Your task to perform on an android device: toggle wifi Image 0: 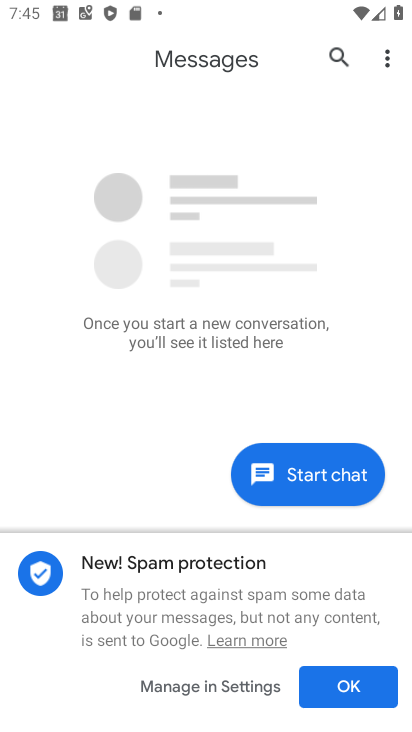
Step 0: press home button
Your task to perform on an android device: toggle wifi Image 1: 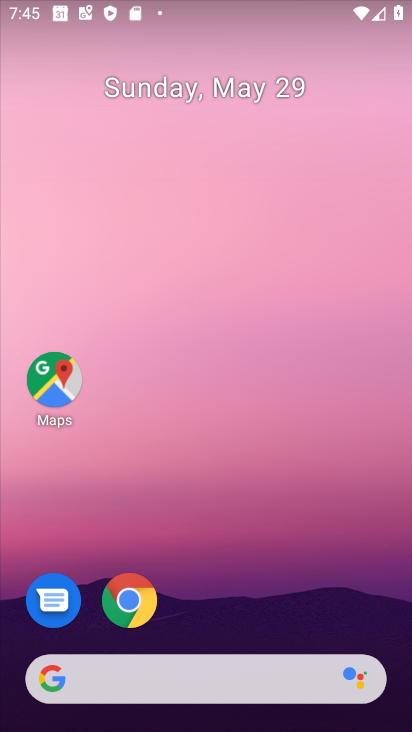
Step 1: drag from (231, 630) to (249, 113)
Your task to perform on an android device: toggle wifi Image 2: 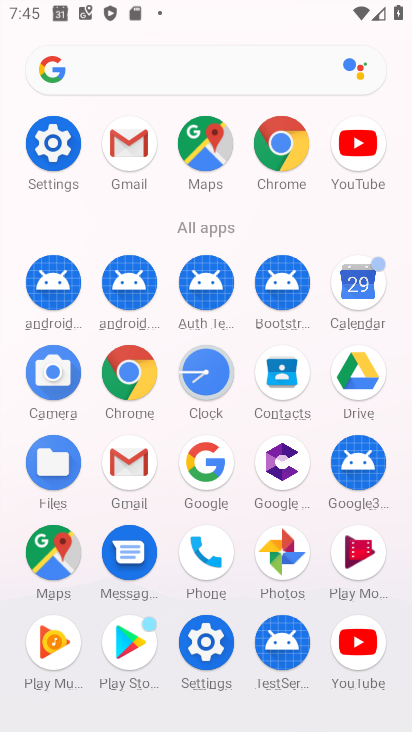
Step 2: click (51, 146)
Your task to perform on an android device: toggle wifi Image 3: 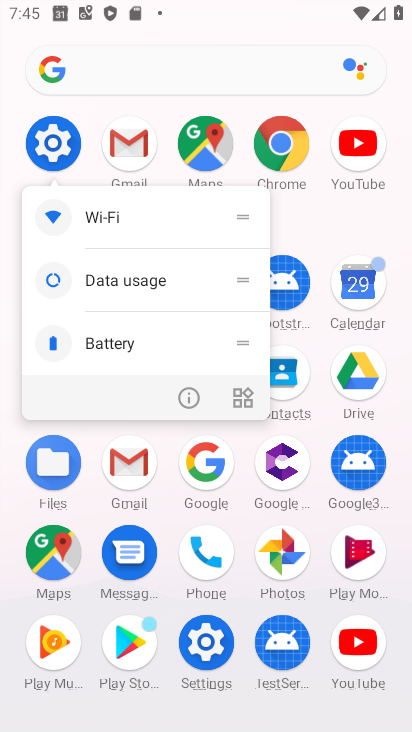
Step 3: click (117, 222)
Your task to perform on an android device: toggle wifi Image 4: 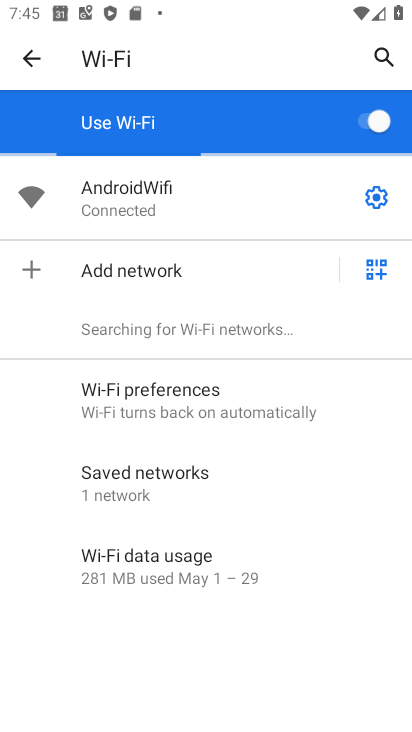
Step 4: click (354, 119)
Your task to perform on an android device: toggle wifi Image 5: 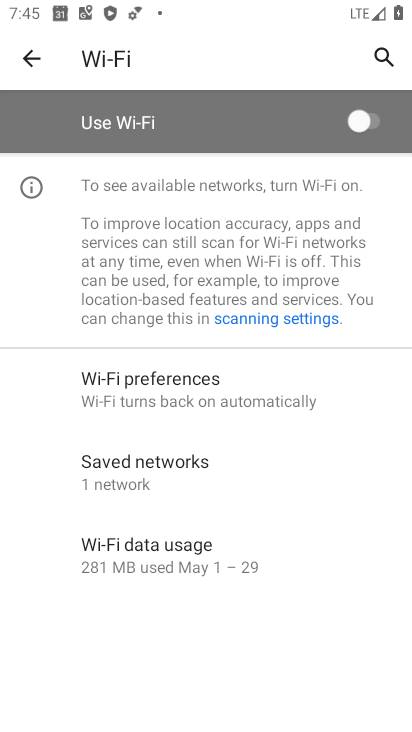
Step 5: task complete